Your task to perform on an android device: check data usage Image 0: 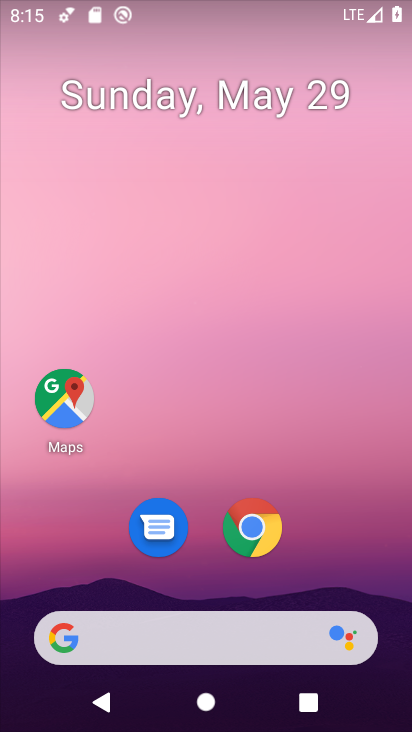
Step 0: drag from (208, 578) to (208, 147)
Your task to perform on an android device: check data usage Image 1: 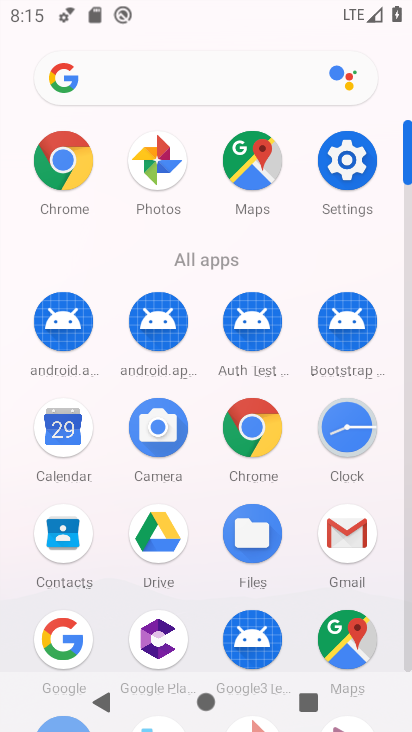
Step 1: click (347, 145)
Your task to perform on an android device: check data usage Image 2: 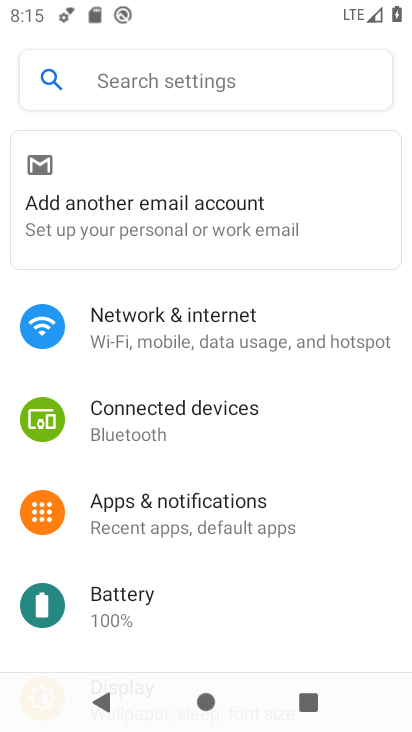
Step 2: click (185, 319)
Your task to perform on an android device: check data usage Image 3: 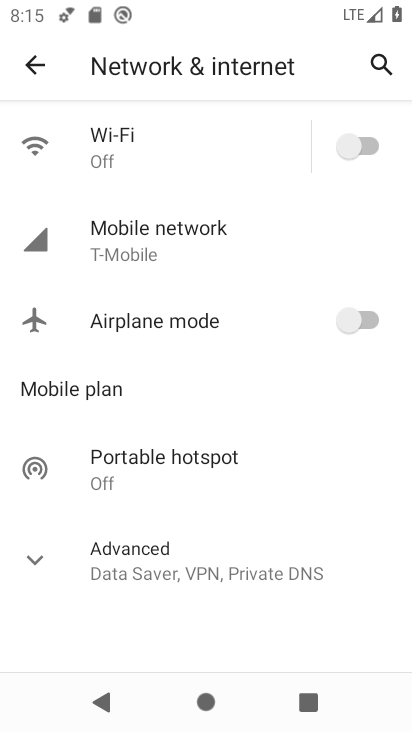
Step 3: click (143, 232)
Your task to perform on an android device: check data usage Image 4: 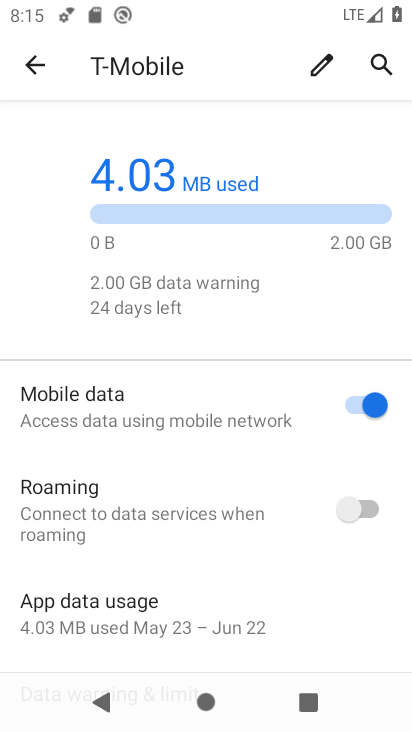
Step 4: click (189, 605)
Your task to perform on an android device: check data usage Image 5: 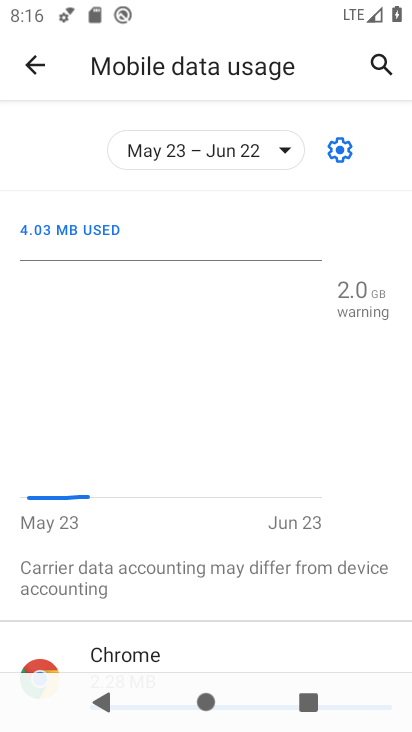
Step 5: task complete